Your task to perform on an android device: Clear the shopping cart on target.com. Search for razer huntsman on target.com, select the first entry, add it to the cart, then select checkout. Image 0: 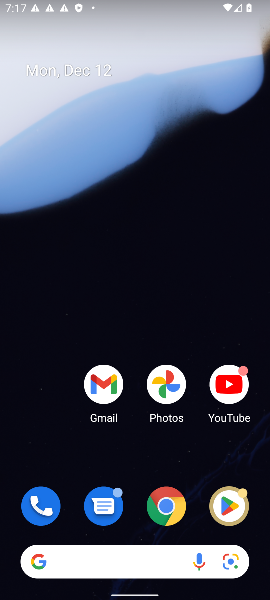
Step 0: click (110, 568)
Your task to perform on an android device: Clear the shopping cart on target.com. Search for razer huntsman on target.com, select the first entry, add it to the cart, then select checkout. Image 1: 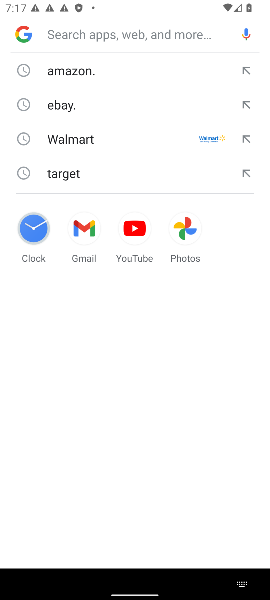
Step 1: click (161, 178)
Your task to perform on an android device: Clear the shopping cart on target.com. Search for razer huntsman on target.com, select the first entry, add it to the cart, then select checkout. Image 2: 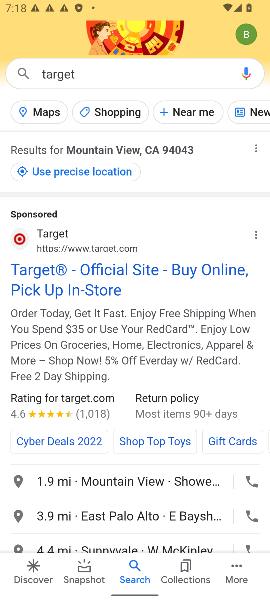
Step 2: click (133, 266)
Your task to perform on an android device: Clear the shopping cart on target.com. Search for razer huntsman on target.com, select the first entry, add it to the cart, then select checkout. Image 3: 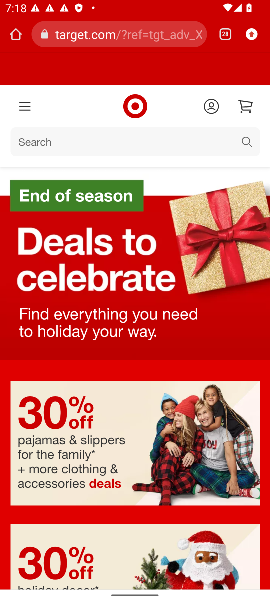
Step 3: click (102, 143)
Your task to perform on an android device: Clear the shopping cart on target.com. Search for razer huntsman on target.com, select the first entry, add it to the cart, then select checkout. Image 4: 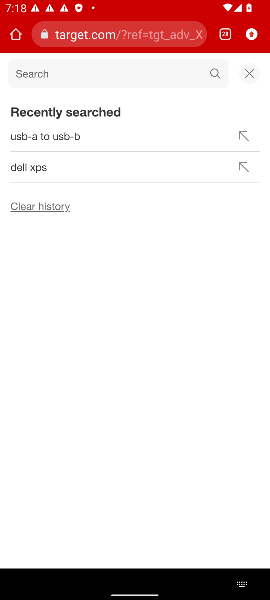
Step 4: type "razer huntsman"
Your task to perform on an android device: Clear the shopping cart on target.com. Search for razer huntsman on target.com, select the first entry, add it to the cart, then select checkout. Image 5: 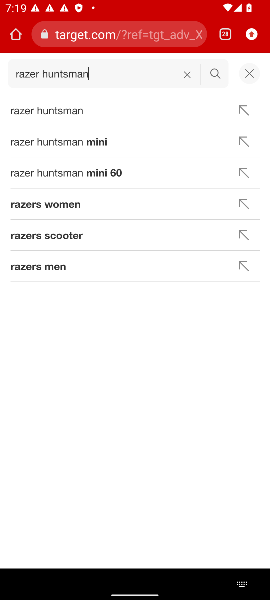
Step 5: click (149, 109)
Your task to perform on an android device: Clear the shopping cart on target.com. Search for razer huntsman on target.com, select the first entry, add it to the cart, then select checkout. Image 6: 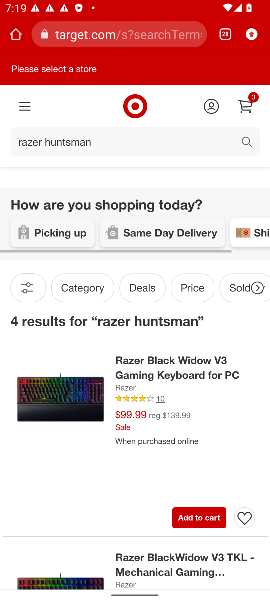
Step 6: click (184, 519)
Your task to perform on an android device: Clear the shopping cart on target.com. Search for razer huntsman on target.com, select the first entry, add it to the cart, then select checkout. Image 7: 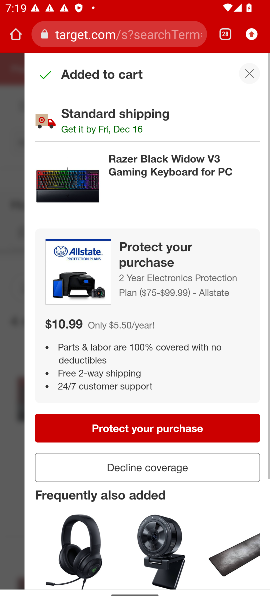
Step 7: task complete